Your task to perform on an android device: Open Google Image 0: 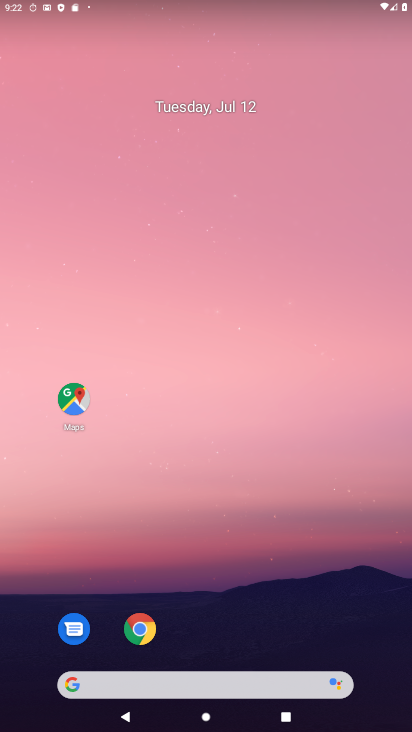
Step 0: drag from (242, 714) to (236, 248)
Your task to perform on an android device: Open Google Image 1: 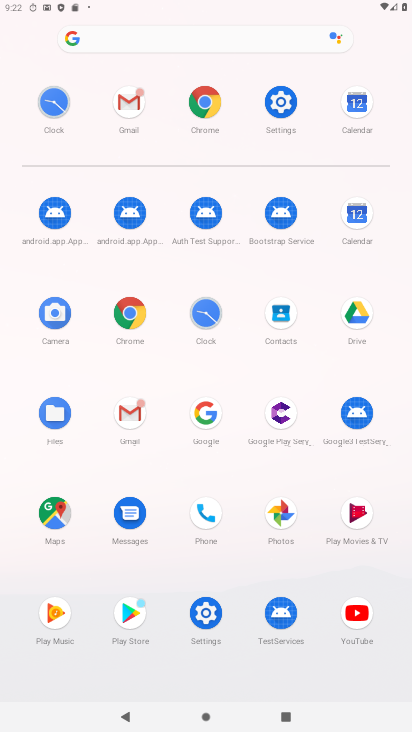
Step 1: click (207, 413)
Your task to perform on an android device: Open Google Image 2: 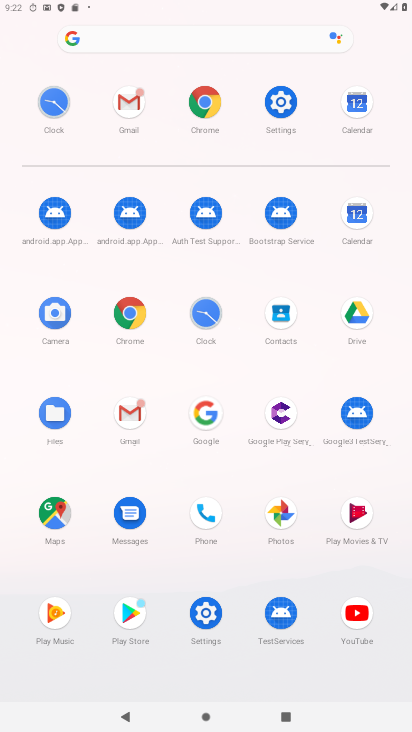
Step 2: click (213, 409)
Your task to perform on an android device: Open Google Image 3: 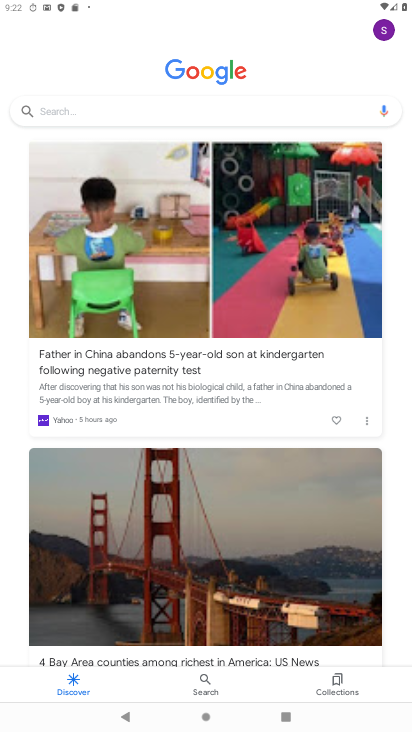
Step 3: task complete